Your task to perform on an android device: Go to eBay Image 0: 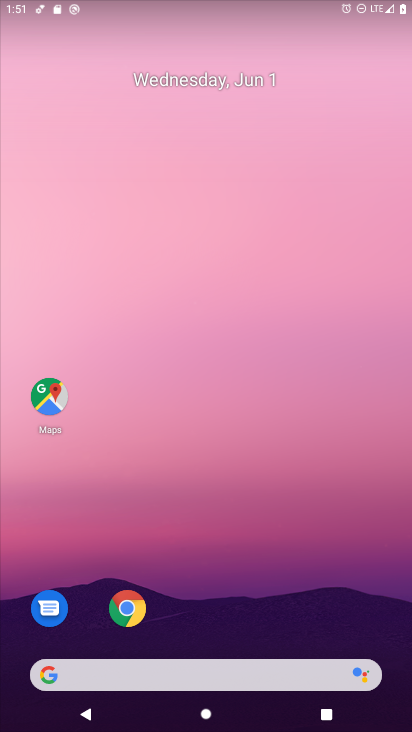
Step 0: drag from (175, 641) to (164, 208)
Your task to perform on an android device: Go to eBay Image 1: 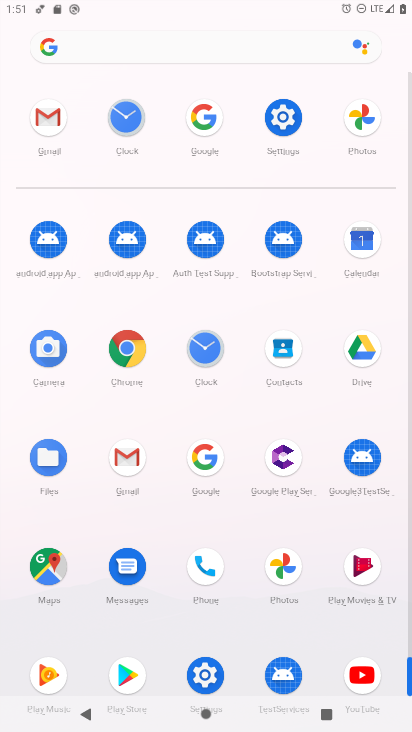
Step 1: click (279, 118)
Your task to perform on an android device: Go to eBay Image 2: 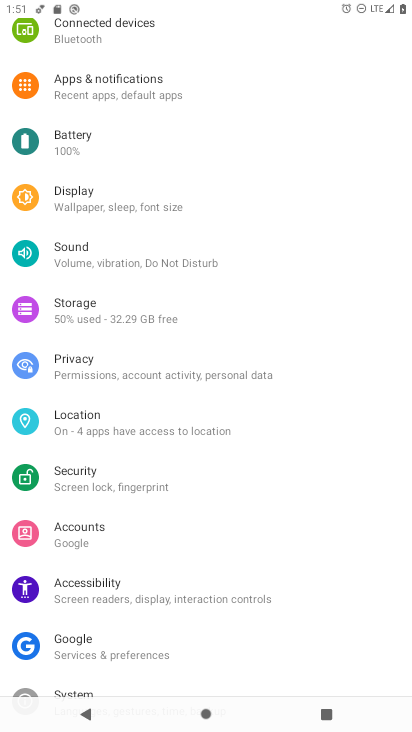
Step 2: press home button
Your task to perform on an android device: Go to eBay Image 3: 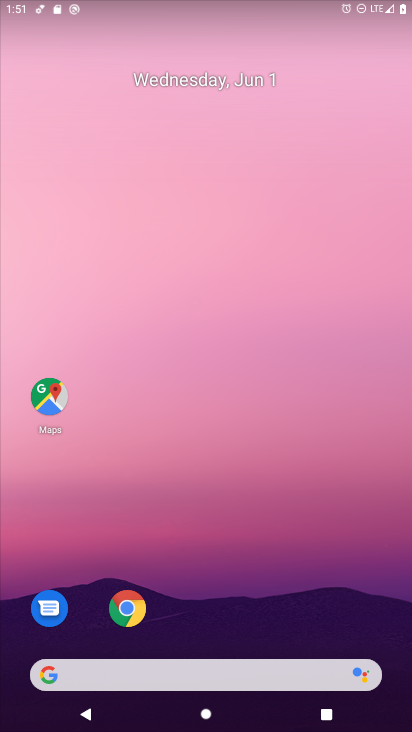
Step 3: click (132, 608)
Your task to perform on an android device: Go to eBay Image 4: 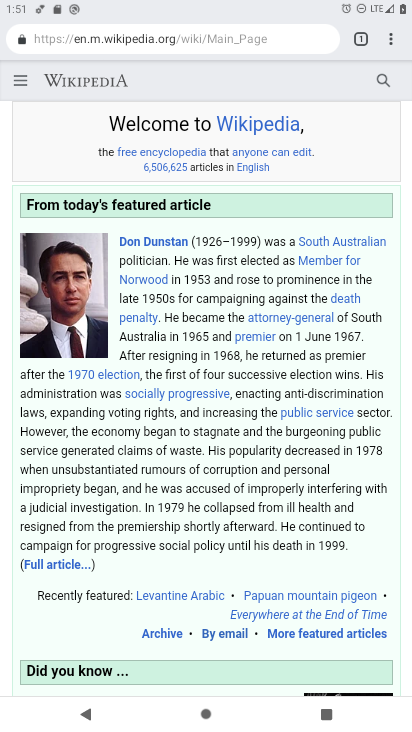
Step 4: click (188, 44)
Your task to perform on an android device: Go to eBay Image 5: 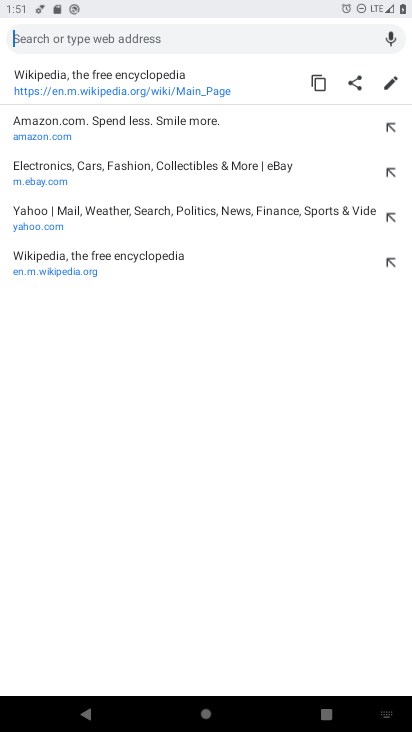
Step 5: press back button
Your task to perform on an android device: Go to eBay Image 6: 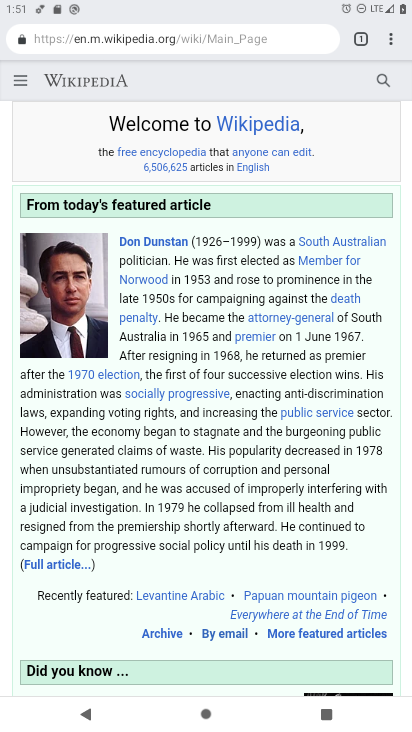
Step 6: press back button
Your task to perform on an android device: Go to eBay Image 7: 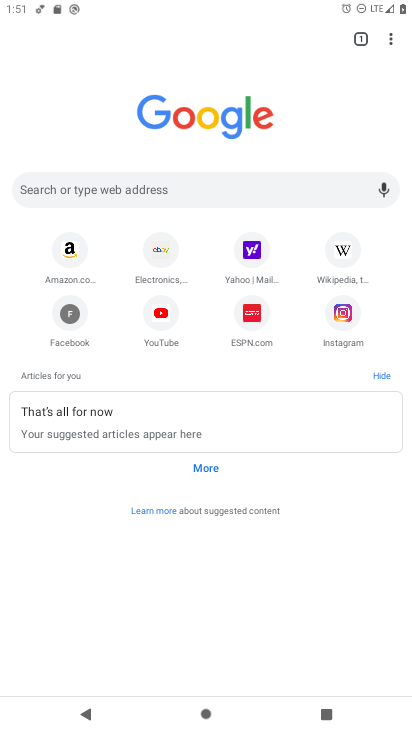
Step 7: click (148, 259)
Your task to perform on an android device: Go to eBay Image 8: 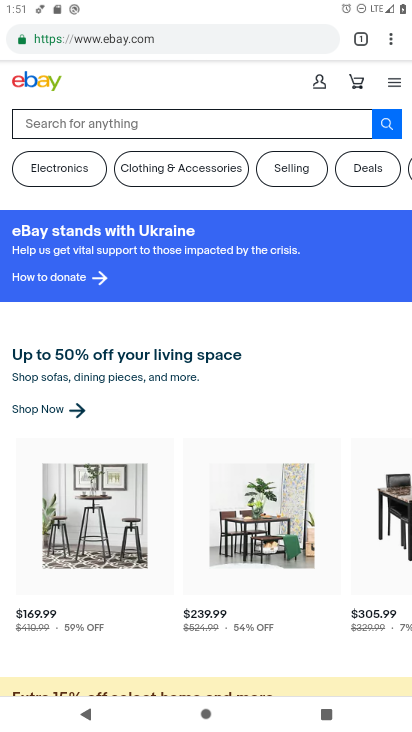
Step 8: task complete